Your task to perform on an android device: Go to eBay Image 0: 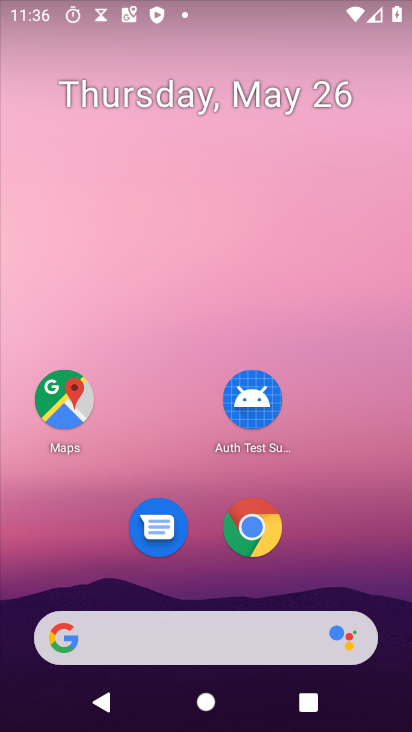
Step 0: drag from (380, 241) to (372, 37)
Your task to perform on an android device: Go to eBay Image 1: 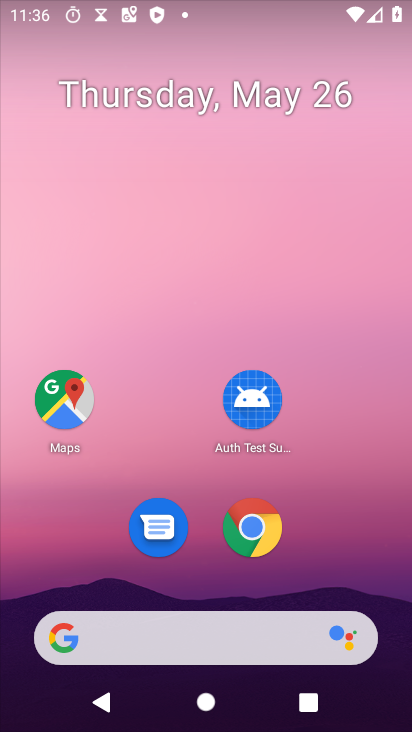
Step 1: drag from (328, 497) to (326, 6)
Your task to perform on an android device: Go to eBay Image 2: 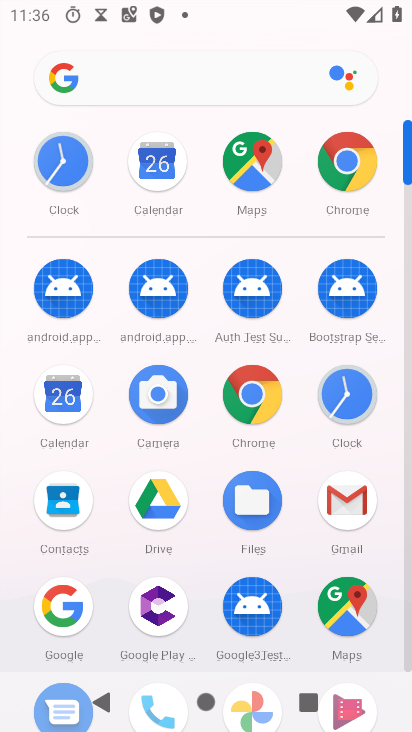
Step 2: click (372, 174)
Your task to perform on an android device: Go to eBay Image 3: 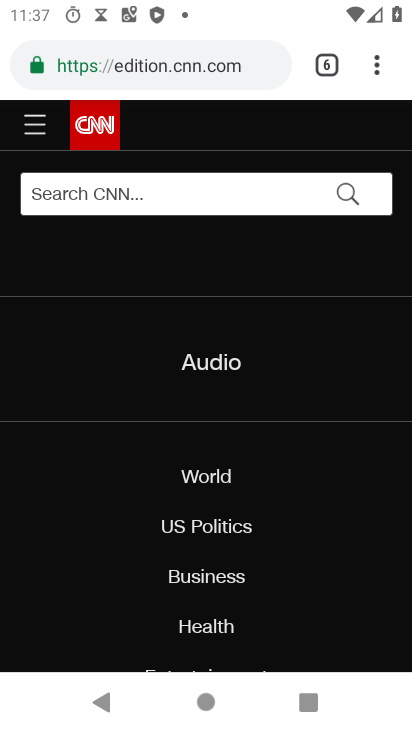
Step 3: click (144, 67)
Your task to perform on an android device: Go to eBay Image 4: 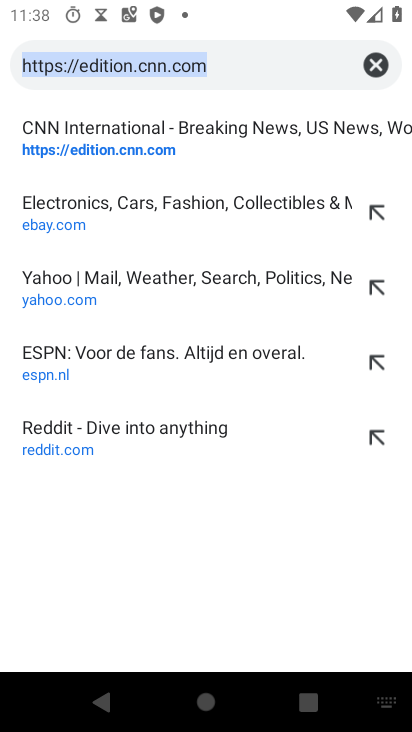
Step 4: click (368, 49)
Your task to perform on an android device: Go to eBay Image 5: 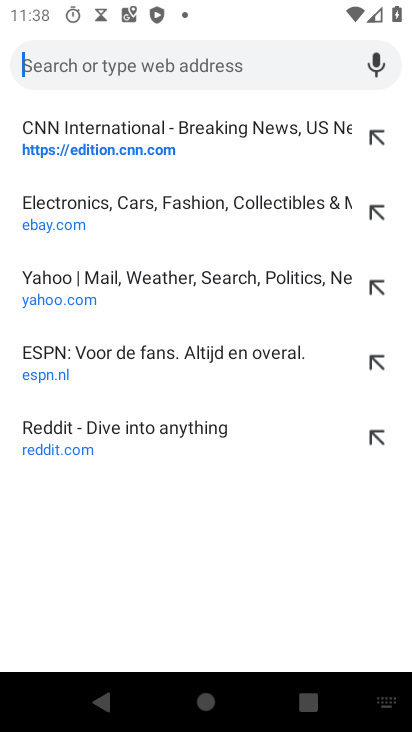
Step 5: type "ebay"
Your task to perform on an android device: Go to eBay Image 6: 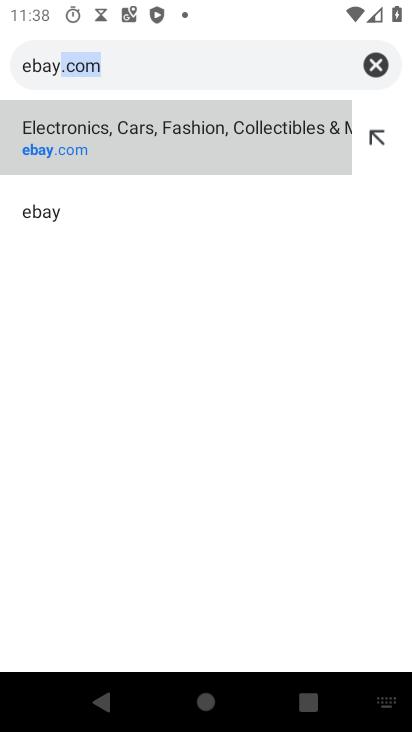
Step 6: click (86, 171)
Your task to perform on an android device: Go to eBay Image 7: 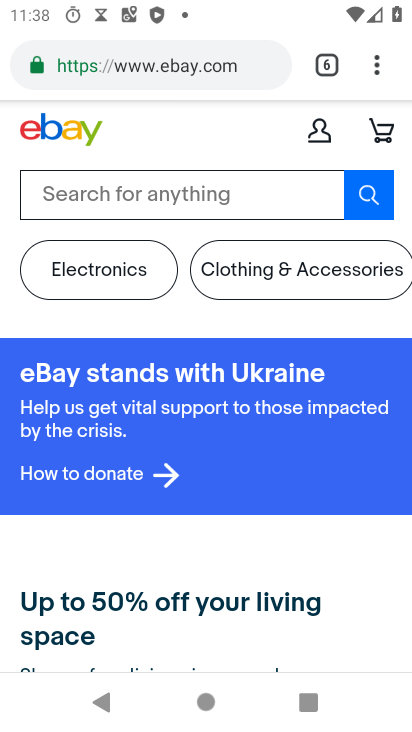
Step 7: task complete